Your task to perform on an android device: empty trash in the gmail app Image 0: 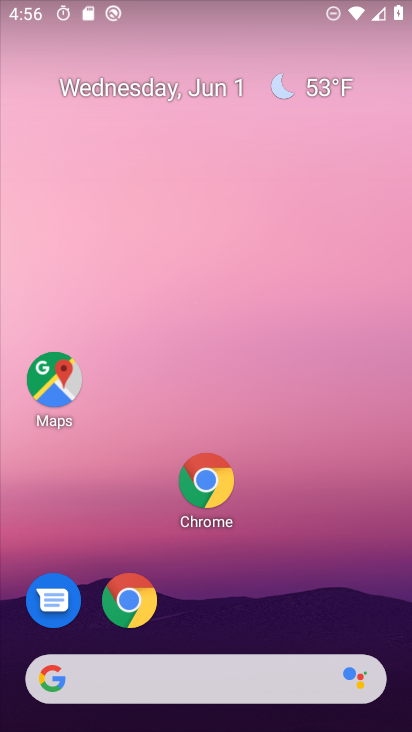
Step 0: drag from (250, 598) to (81, 134)
Your task to perform on an android device: empty trash in the gmail app Image 1: 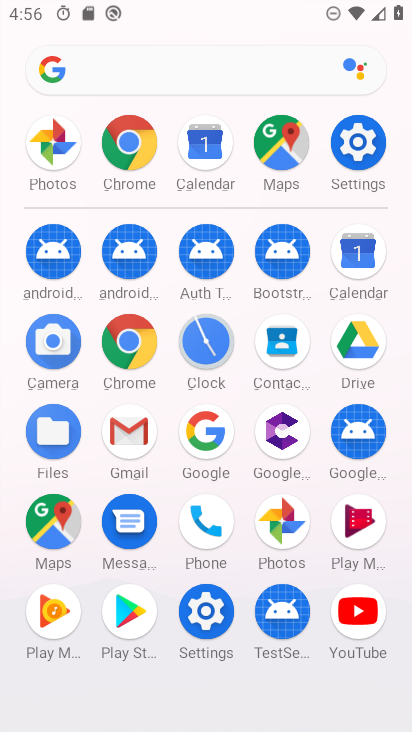
Step 1: click (126, 446)
Your task to perform on an android device: empty trash in the gmail app Image 2: 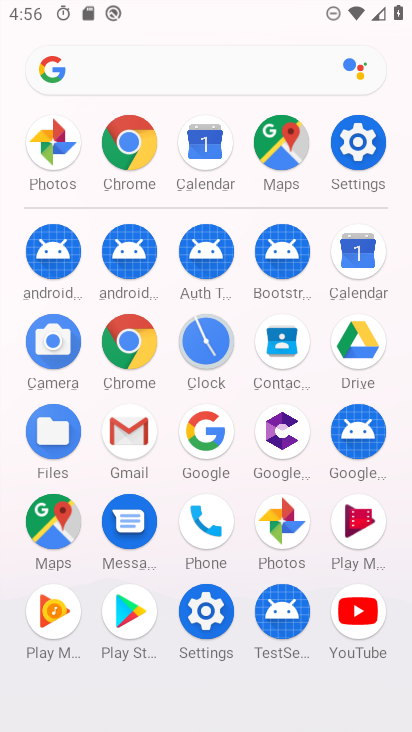
Step 2: click (123, 445)
Your task to perform on an android device: empty trash in the gmail app Image 3: 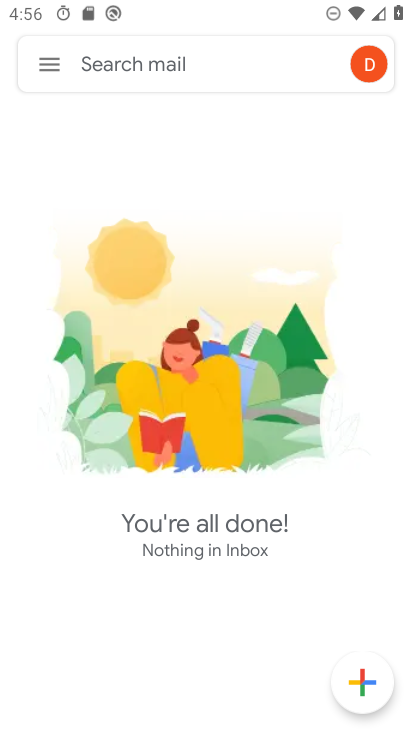
Step 3: click (127, 436)
Your task to perform on an android device: empty trash in the gmail app Image 4: 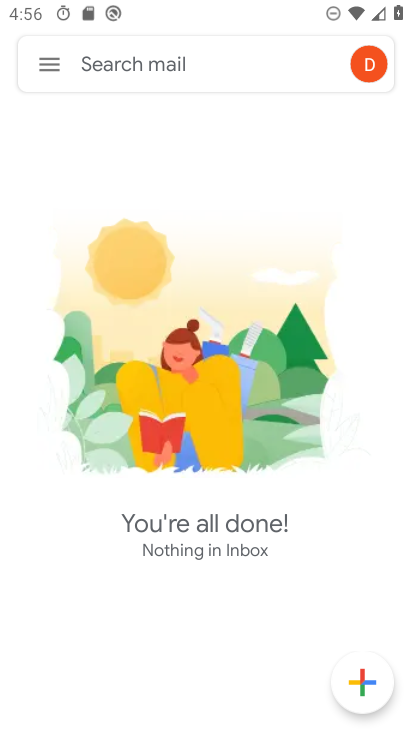
Step 4: click (47, 68)
Your task to perform on an android device: empty trash in the gmail app Image 5: 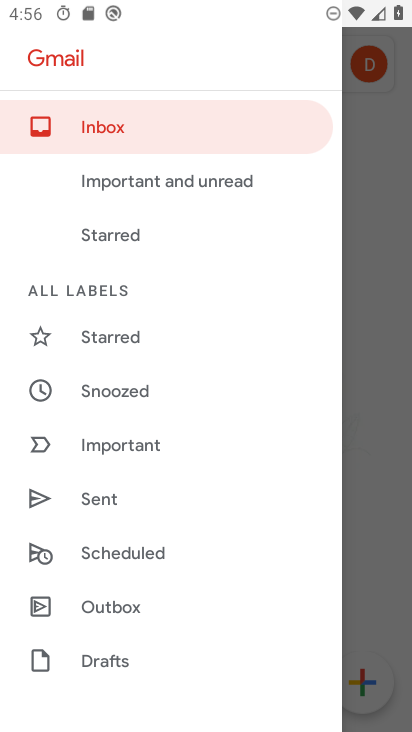
Step 5: drag from (120, 623) to (92, 272)
Your task to perform on an android device: empty trash in the gmail app Image 6: 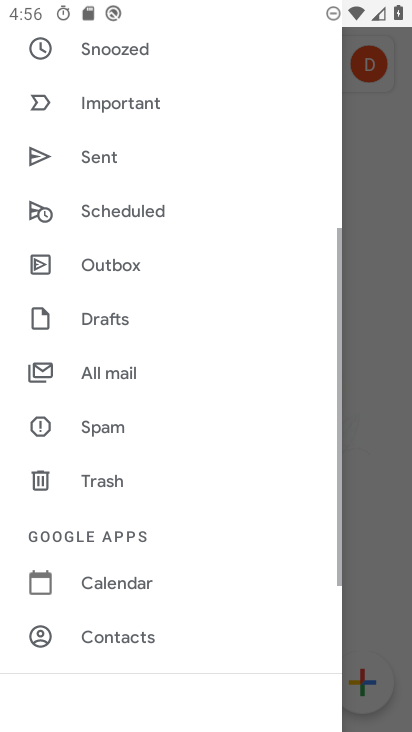
Step 6: drag from (130, 516) to (126, 304)
Your task to perform on an android device: empty trash in the gmail app Image 7: 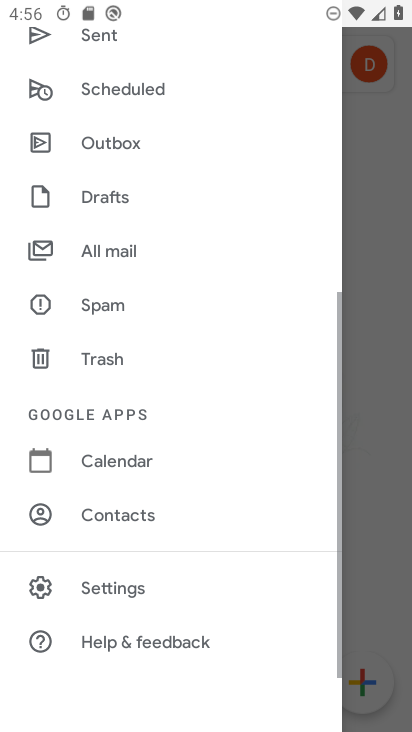
Step 7: drag from (143, 469) to (144, 278)
Your task to perform on an android device: empty trash in the gmail app Image 8: 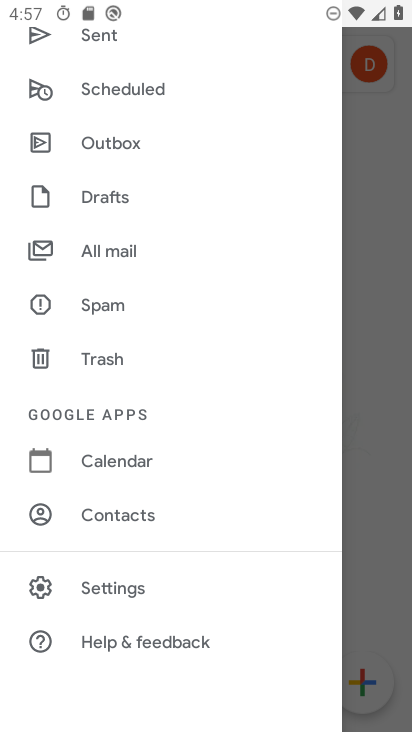
Step 8: click (86, 352)
Your task to perform on an android device: empty trash in the gmail app Image 9: 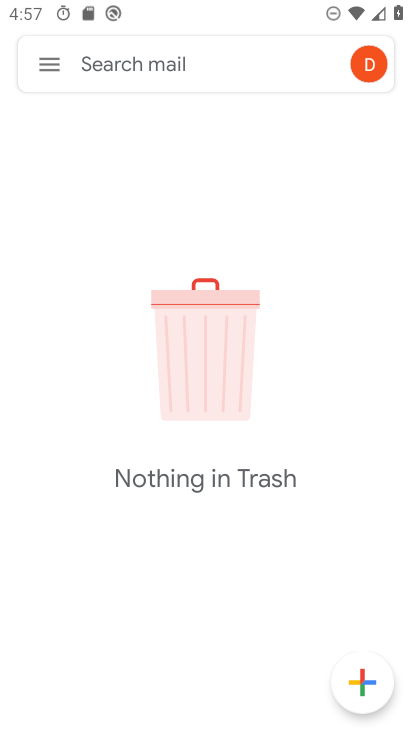
Step 9: task complete